Your task to perform on an android device: Open Google Maps Image 0: 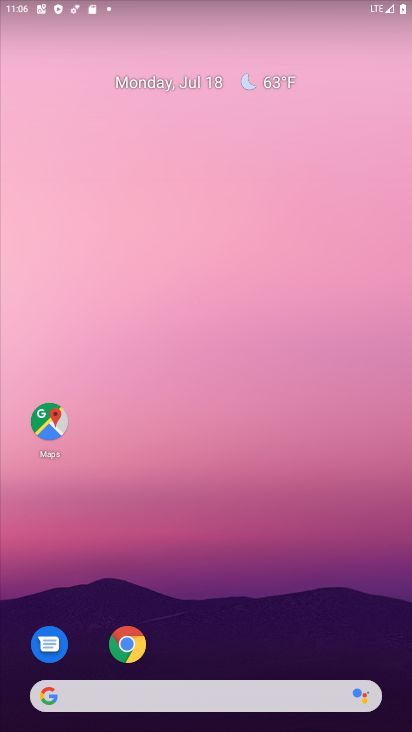
Step 0: click (47, 417)
Your task to perform on an android device: Open Google Maps Image 1: 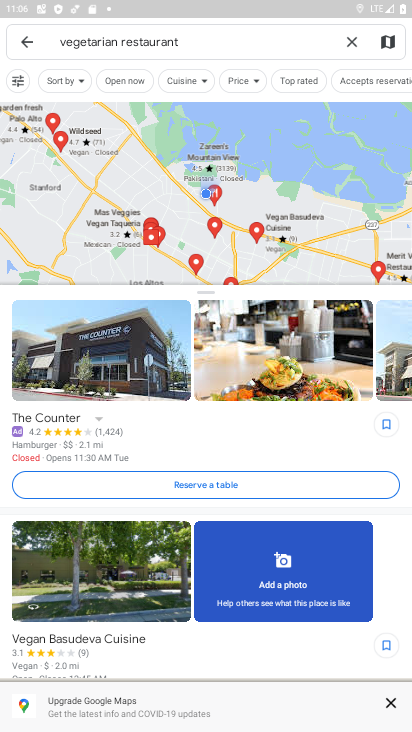
Step 1: task complete